Your task to perform on an android device: Open accessibility settings Image 0: 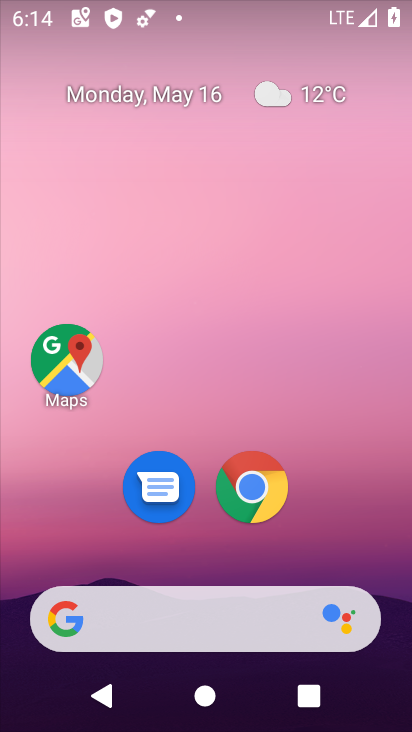
Step 0: drag from (349, 511) to (339, 104)
Your task to perform on an android device: Open accessibility settings Image 1: 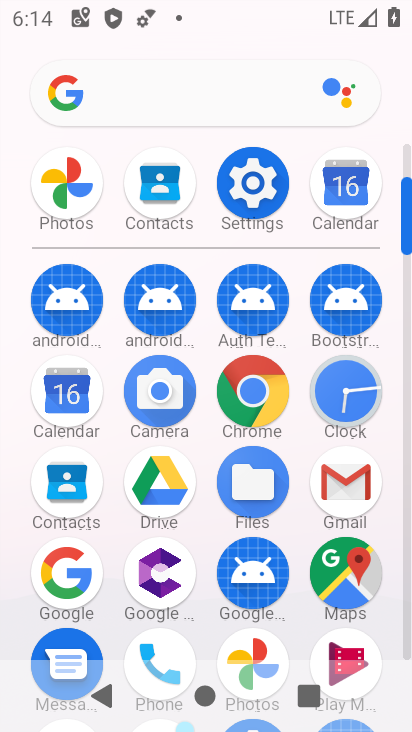
Step 1: click (260, 187)
Your task to perform on an android device: Open accessibility settings Image 2: 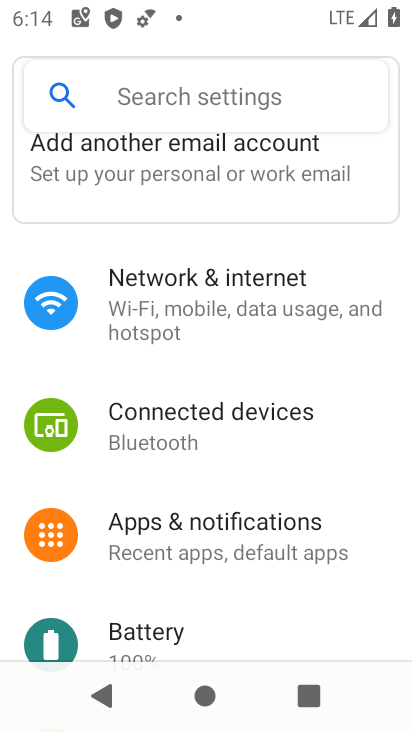
Step 2: drag from (258, 533) to (272, 99)
Your task to perform on an android device: Open accessibility settings Image 3: 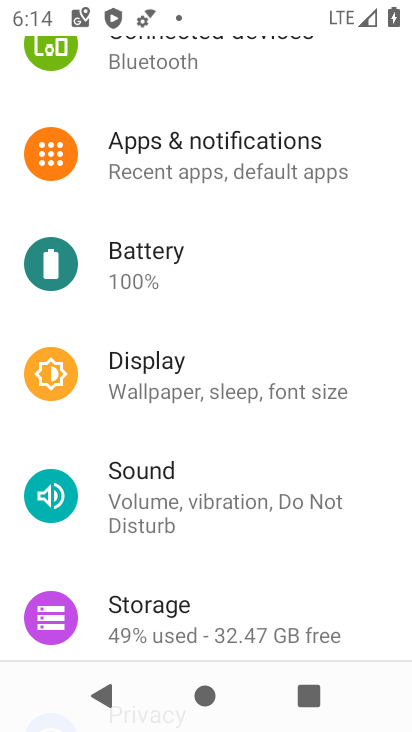
Step 3: drag from (253, 478) to (280, 114)
Your task to perform on an android device: Open accessibility settings Image 4: 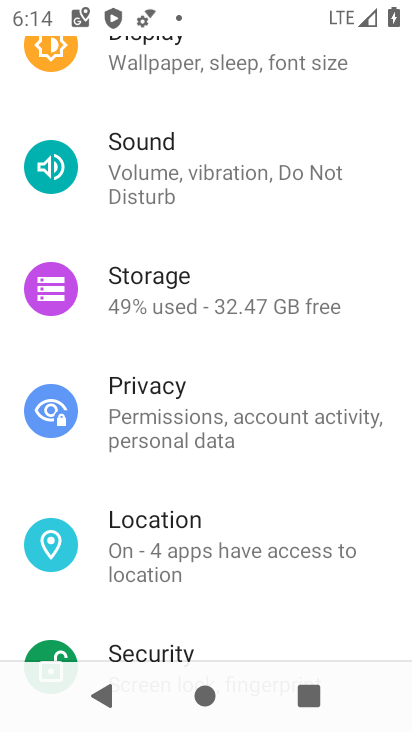
Step 4: drag from (275, 511) to (275, 173)
Your task to perform on an android device: Open accessibility settings Image 5: 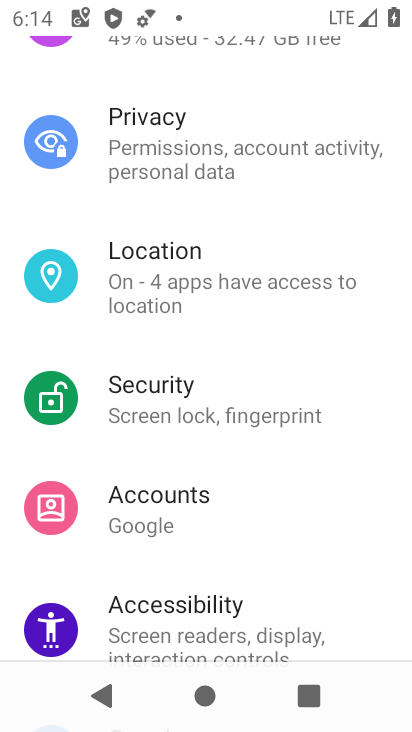
Step 5: click (179, 618)
Your task to perform on an android device: Open accessibility settings Image 6: 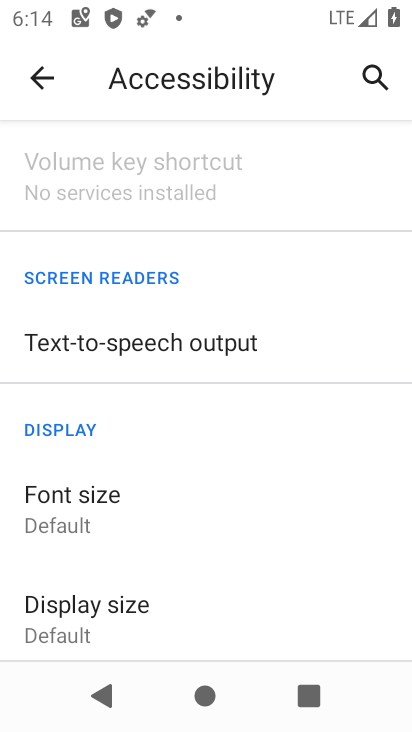
Step 6: task complete